Your task to perform on an android device: toggle airplane mode Image 0: 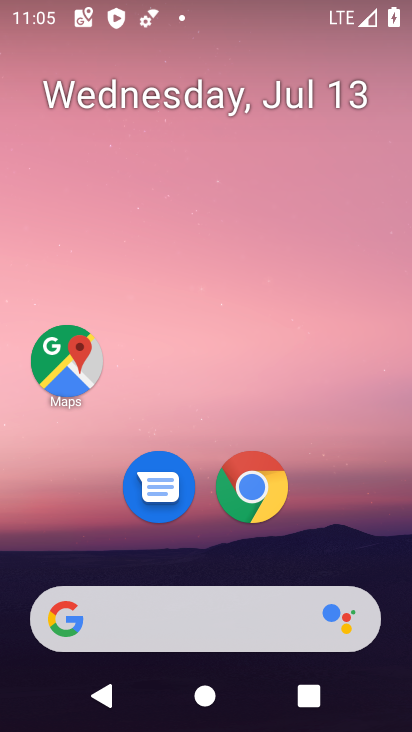
Step 0: drag from (223, 573) to (212, 2)
Your task to perform on an android device: toggle airplane mode Image 1: 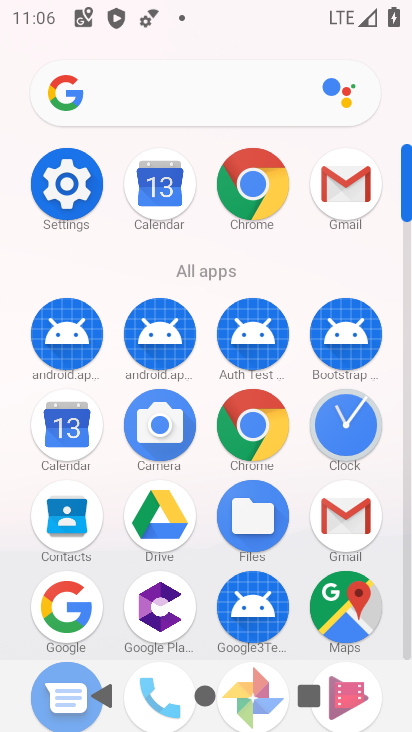
Step 1: click (73, 175)
Your task to perform on an android device: toggle airplane mode Image 2: 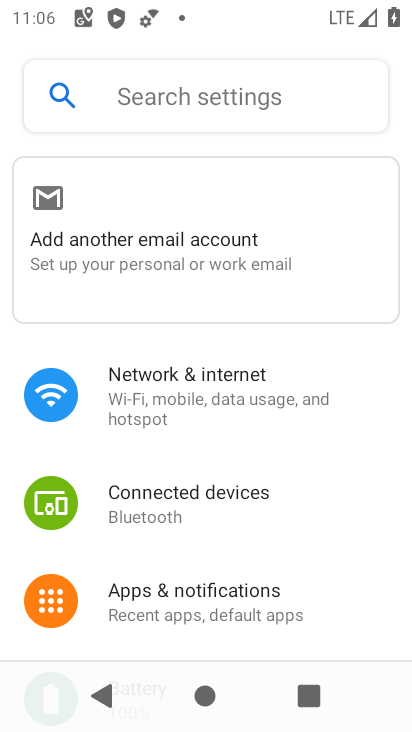
Step 2: click (138, 409)
Your task to perform on an android device: toggle airplane mode Image 3: 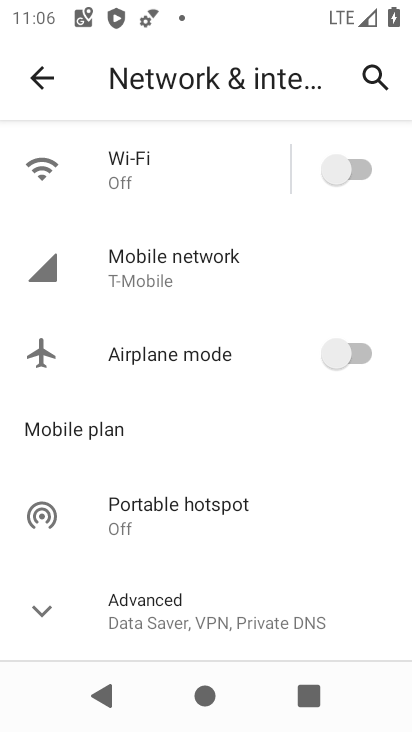
Step 3: click (312, 365)
Your task to perform on an android device: toggle airplane mode Image 4: 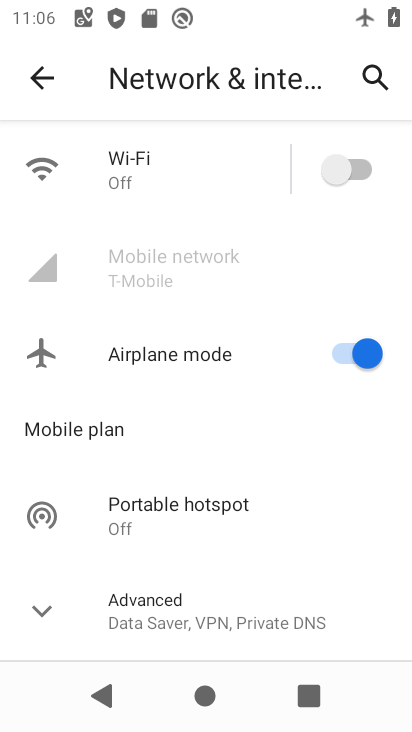
Step 4: task complete